Your task to perform on an android device: turn off javascript in the chrome app Image 0: 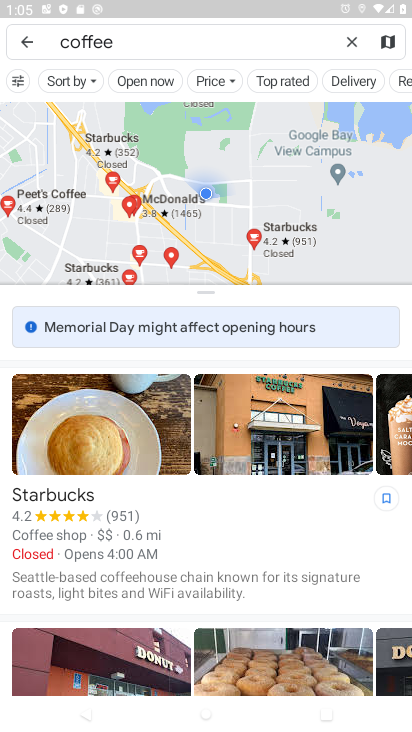
Step 0: press home button
Your task to perform on an android device: turn off javascript in the chrome app Image 1: 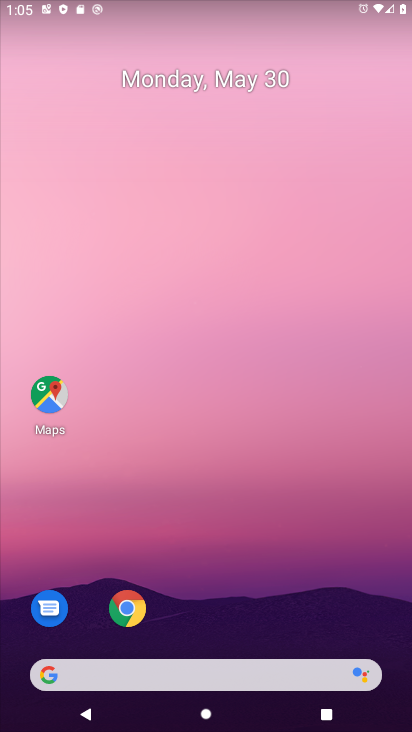
Step 1: click (127, 619)
Your task to perform on an android device: turn off javascript in the chrome app Image 2: 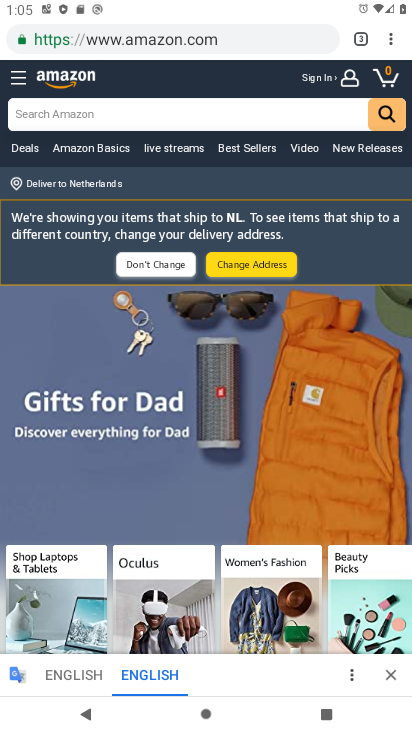
Step 2: click (390, 32)
Your task to perform on an android device: turn off javascript in the chrome app Image 3: 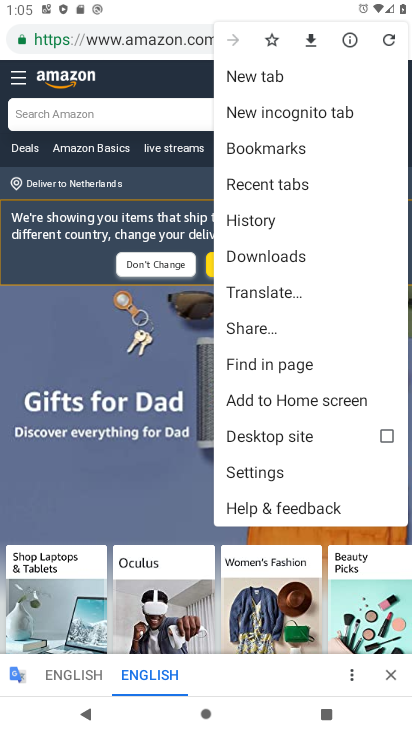
Step 3: click (304, 478)
Your task to perform on an android device: turn off javascript in the chrome app Image 4: 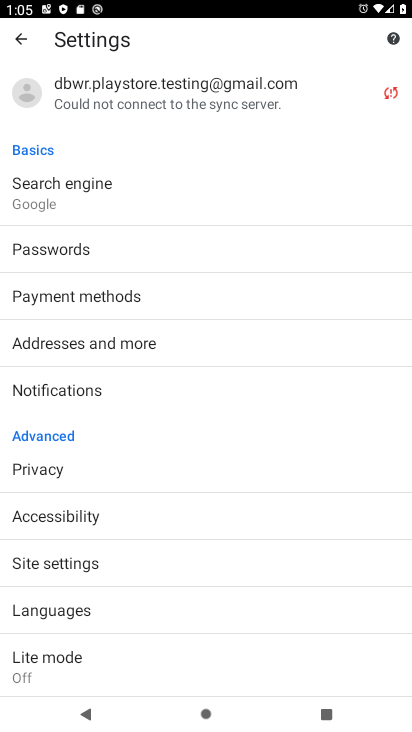
Step 4: drag from (211, 551) to (243, 335)
Your task to perform on an android device: turn off javascript in the chrome app Image 5: 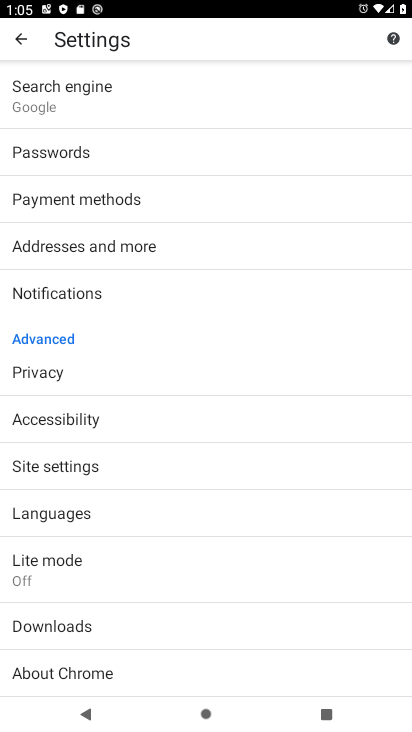
Step 5: click (111, 474)
Your task to perform on an android device: turn off javascript in the chrome app Image 6: 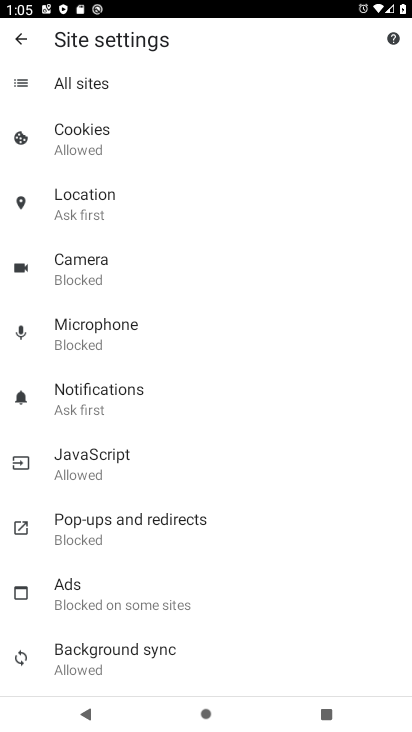
Step 6: click (152, 478)
Your task to perform on an android device: turn off javascript in the chrome app Image 7: 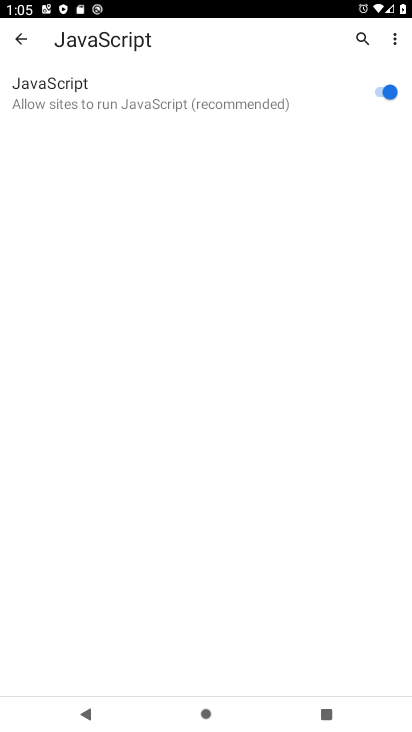
Step 7: click (387, 84)
Your task to perform on an android device: turn off javascript in the chrome app Image 8: 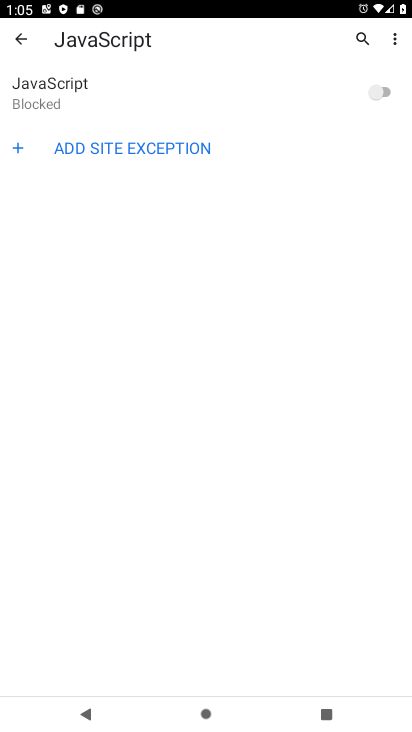
Step 8: task complete